Your task to perform on an android device: toggle data saver in the chrome app Image 0: 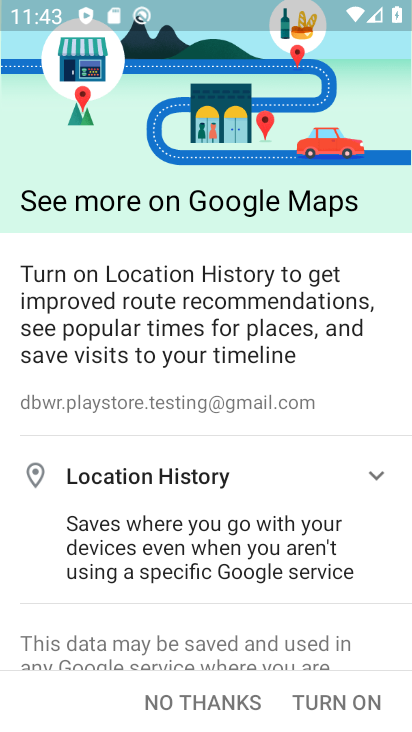
Step 0: press home button
Your task to perform on an android device: toggle data saver in the chrome app Image 1: 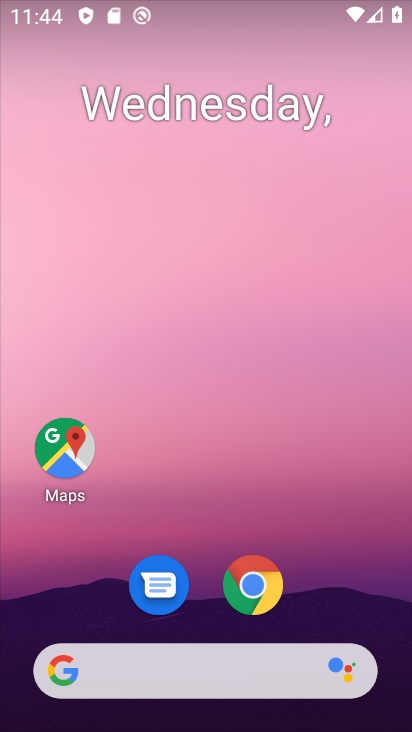
Step 1: click (263, 581)
Your task to perform on an android device: toggle data saver in the chrome app Image 2: 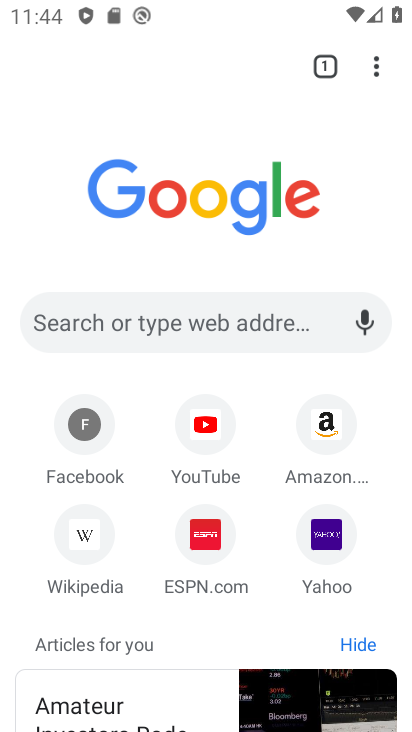
Step 2: click (373, 69)
Your task to perform on an android device: toggle data saver in the chrome app Image 3: 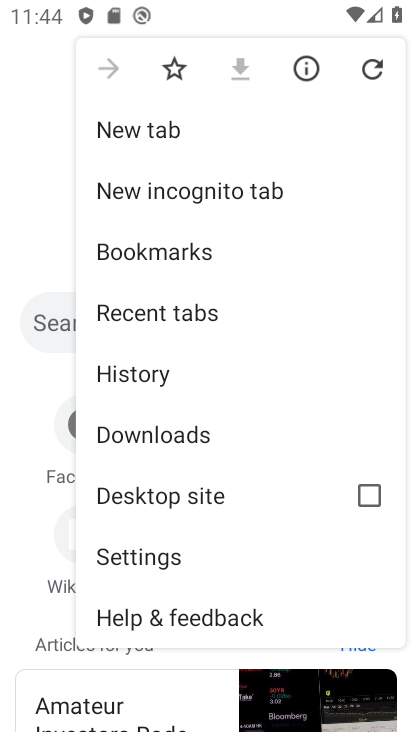
Step 3: click (161, 554)
Your task to perform on an android device: toggle data saver in the chrome app Image 4: 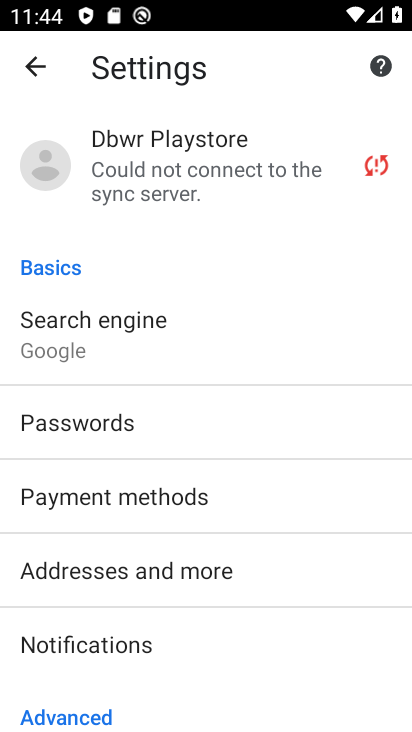
Step 4: drag from (263, 575) to (280, 112)
Your task to perform on an android device: toggle data saver in the chrome app Image 5: 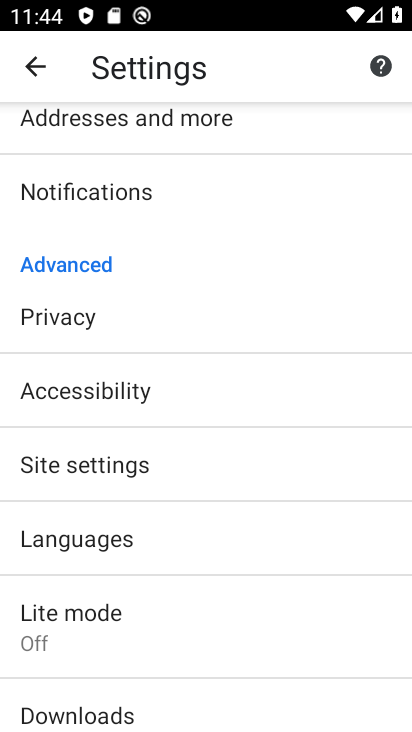
Step 5: click (230, 642)
Your task to perform on an android device: toggle data saver in the chrome app Image 6: 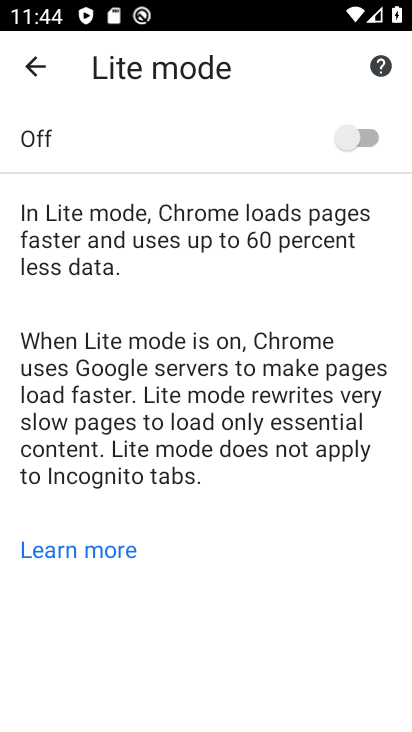
Step 6: click (352, 130)
Your task to perform on an android device: toggle data saver in the chrome app Image 7: 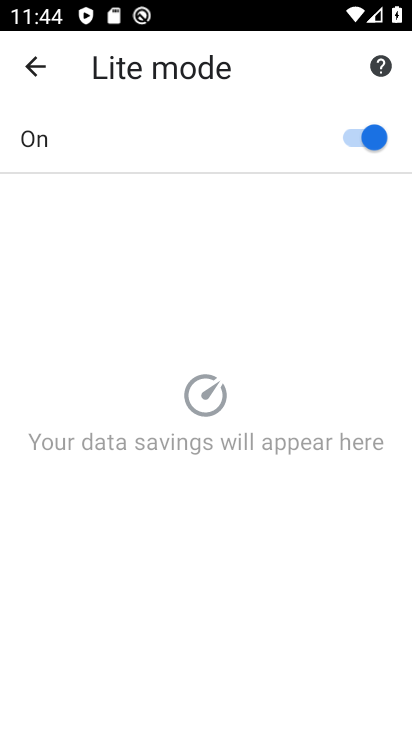
Step 7: task complete